Your task to perform on an android device: open a new tab in the chrome app Image 0: 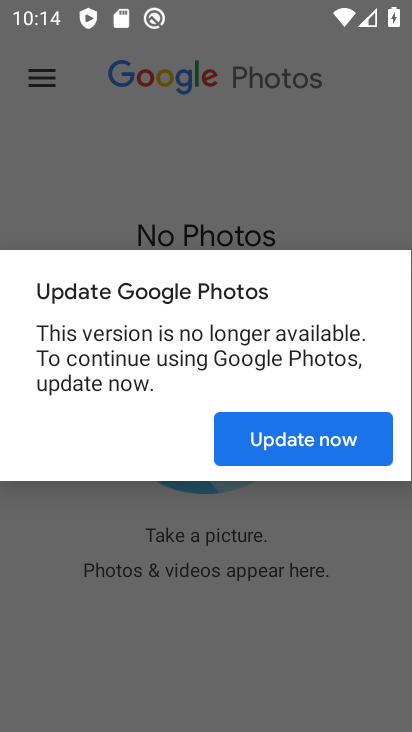
Step 0: press home button
Your task to perform on an android device: open a new tab in the chrome app Image 1: 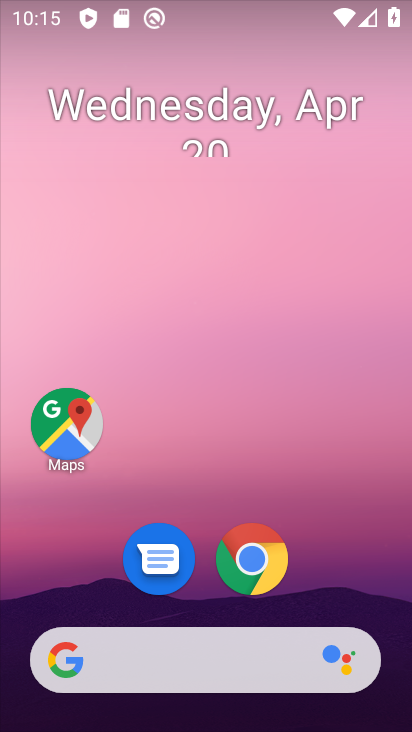
Step 1: click (247, 562)
Your task to perform on an android device: open a new tab in the chrome app Image 2: 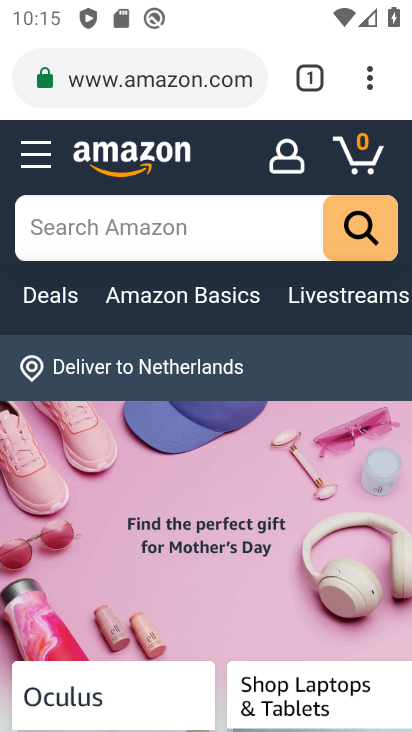
Step 2: task complete